Your task to perform on an android device: Open calendar and show me the first week of next month Image 0: 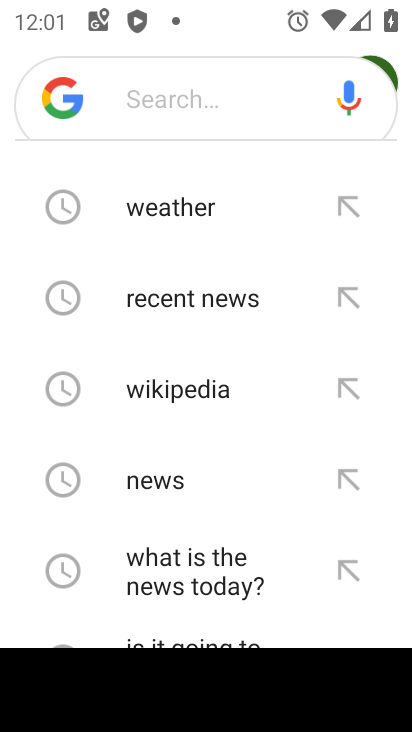
Step 0: press home button
Your task to perform on an android device: Open calendar and show me the first week of next month Image 1: 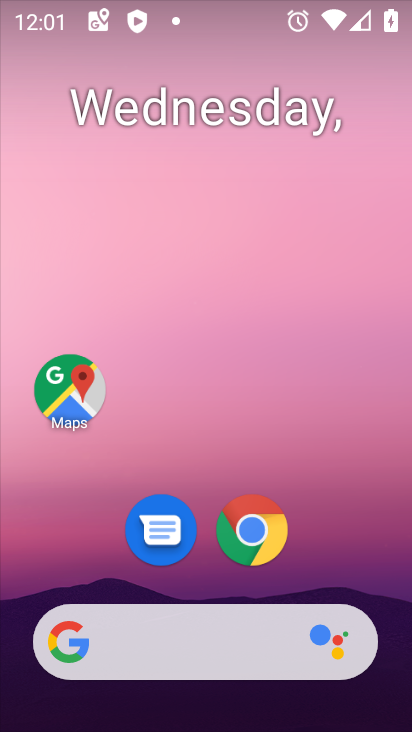
Step 1: drag from (274, 496) to (364, 222)
Your task to perform on an android device: Open calendar and show me the first week of next month Image 2: 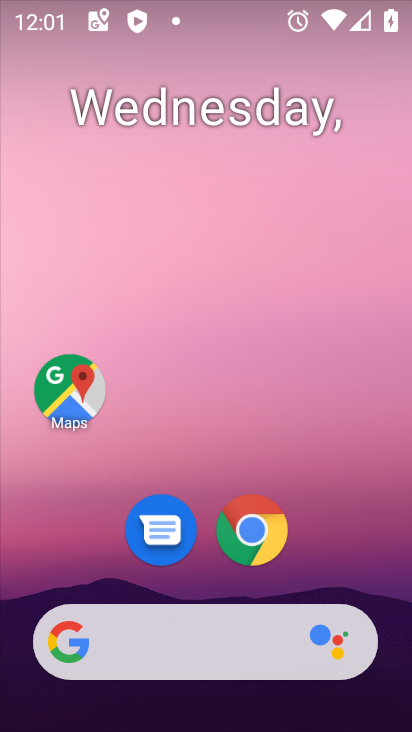
Step 2: drag from (239, 349) to (275, 136)
Your task to perform on an android device: Open calendar and show me the first week of next month Image 3: 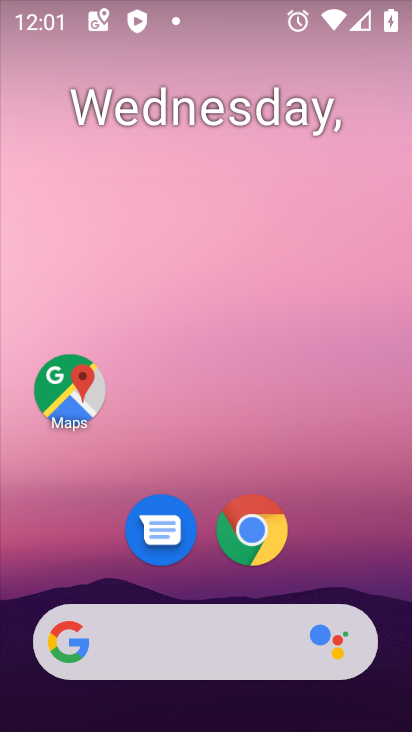
Step 3: drag from (188, 602) to (290, 157)
Your task to perform on an android device: Open calendar and show me the first week of next month Image 4: 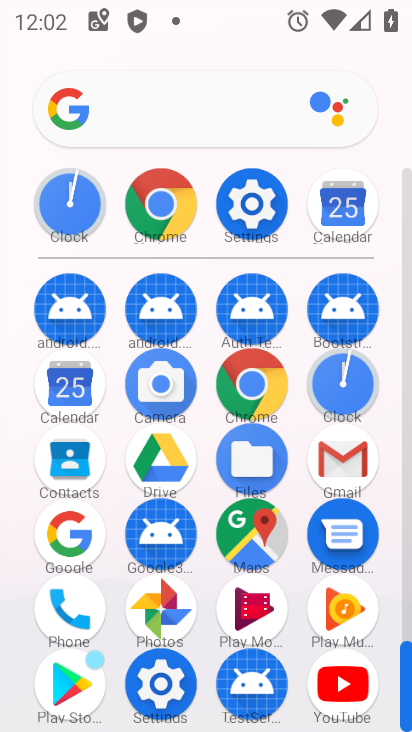
Step 4: click (64, 386)
Your task to perform on an android device: Open calendar and show me the first week of next month Image 5: 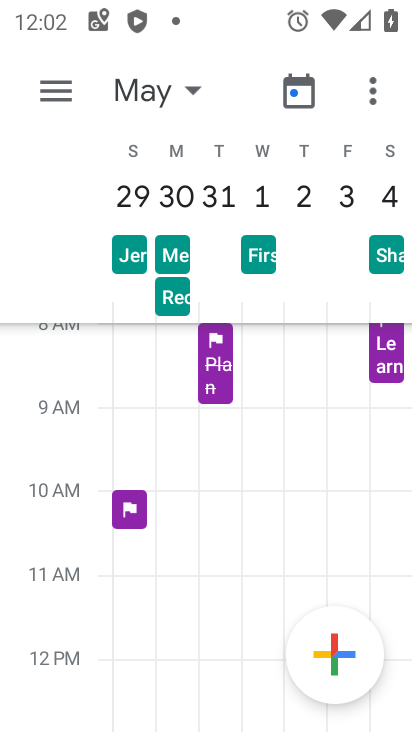
Step 5: click (190, 93)
Your task to perform on an android device: Open calendar and show me the first week of next month Image 6: 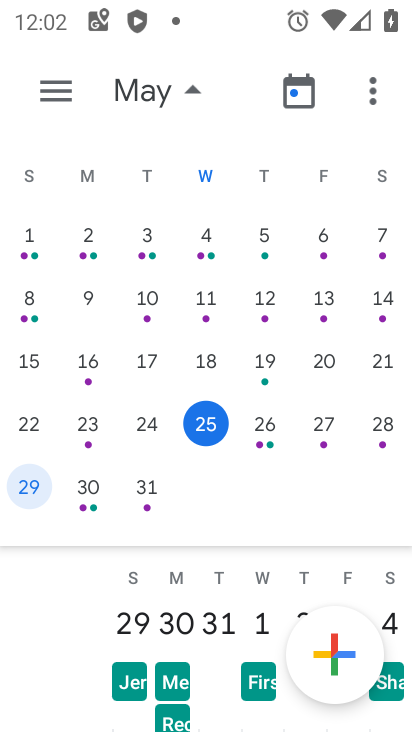
Step 6: drag from (396, 332) to (73, 250)
Your task to perform on an android device: Open calendar and show me the first week of next month Image 7: 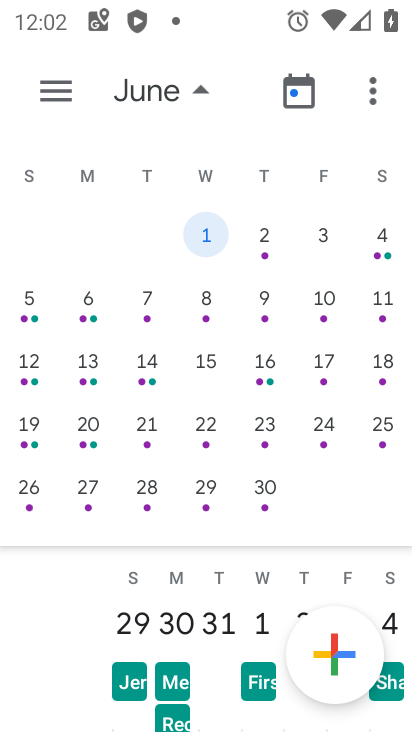
Step 7: click (257, 233)
Your task to perform on an android device: Open calendar and show me the first week of next month Image 8: 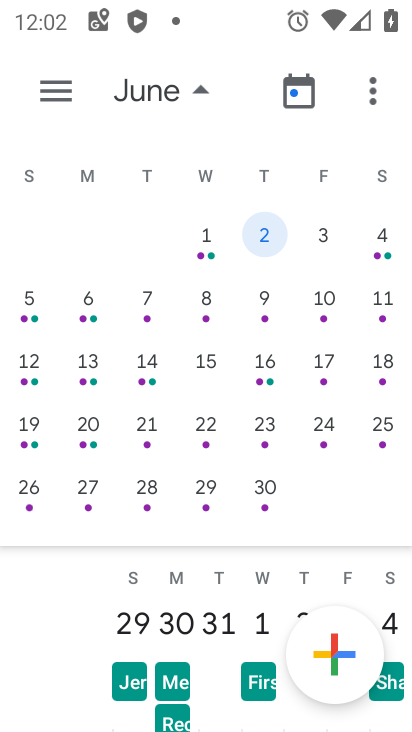
Step 8: click (315, 239)
Your task to perform on an android device: Open calendar and show me the first week of next month Image 9: 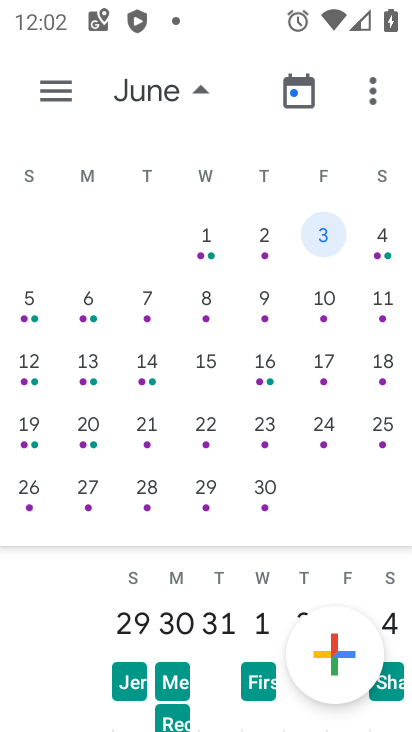
Step 9: click (387, 239)
Your task to perform on an android device: Open calendar and show me the first week of next month Image 10: 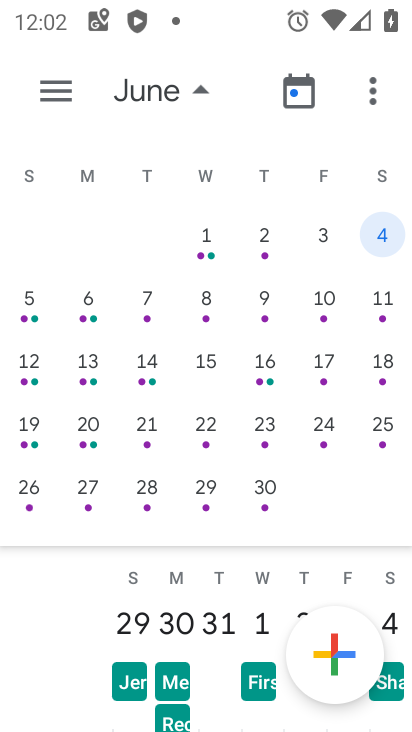
Step 10: task complete